Your task to perform on an android device: Go to display settings Image 0: 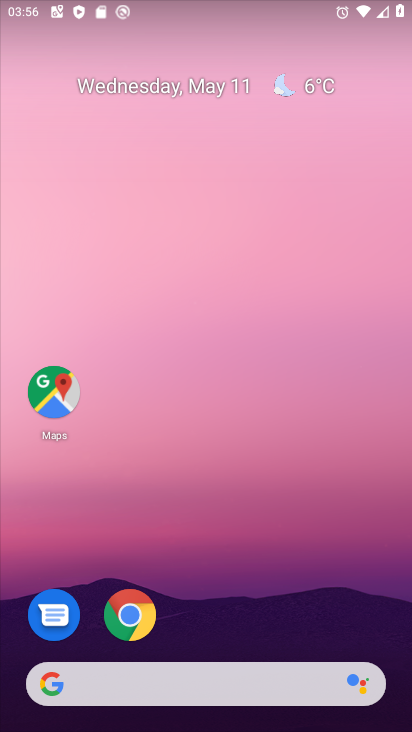
Step 0: drag from (276, 414) to (314, 109)
Your task to perform on an android device: Go to display settings Image 1: 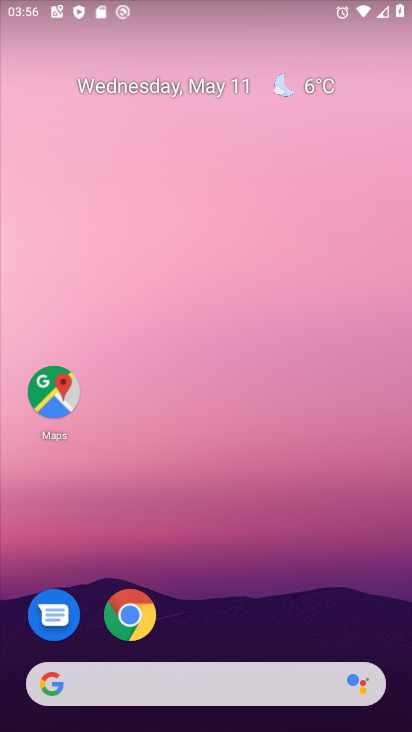
Step 1: drag from (277, 574) to (293, 23)
Your task to perform on an android device: Go to display settings Image 2: 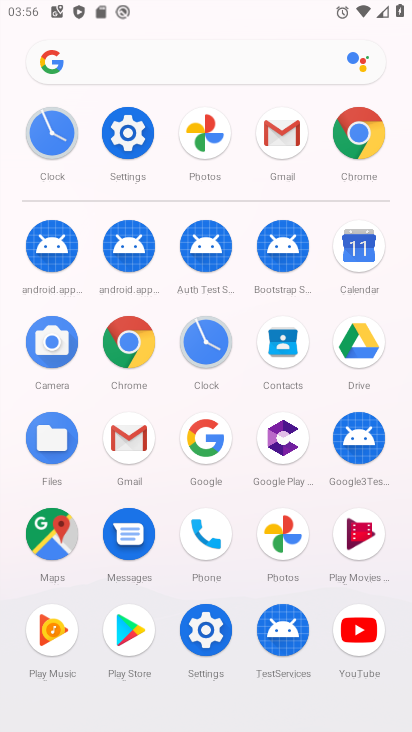
Step 2: click (132, 152)
Your task to perform on an android device: Go to display settings Image 3: 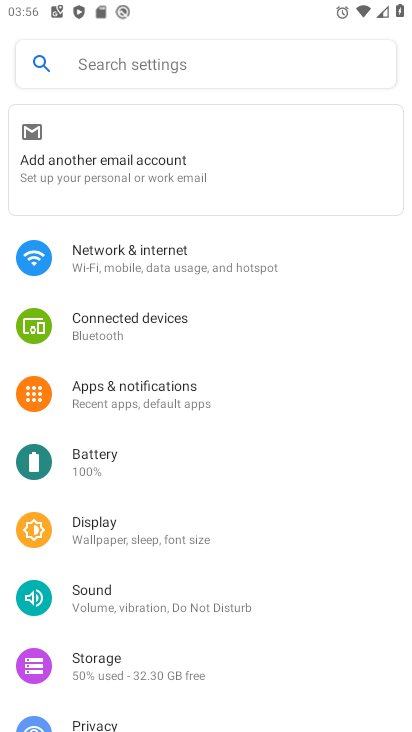
Step 3: click (115, 527)
Your task to perform on an android device: Go to display settings Image 4: 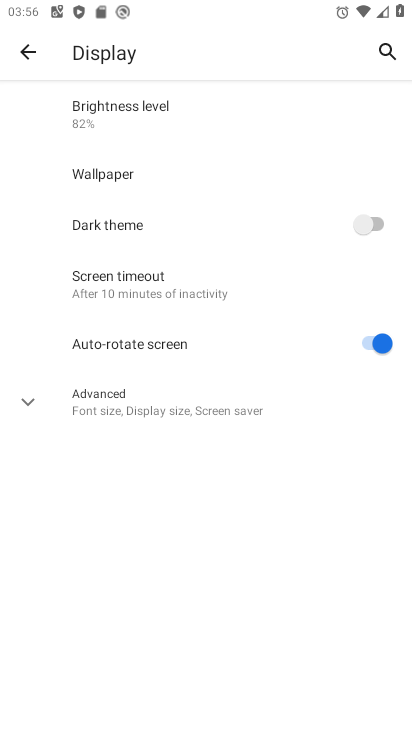
Step 4: task complete